Your task to perform on an android device: What's the weather? Image 0: 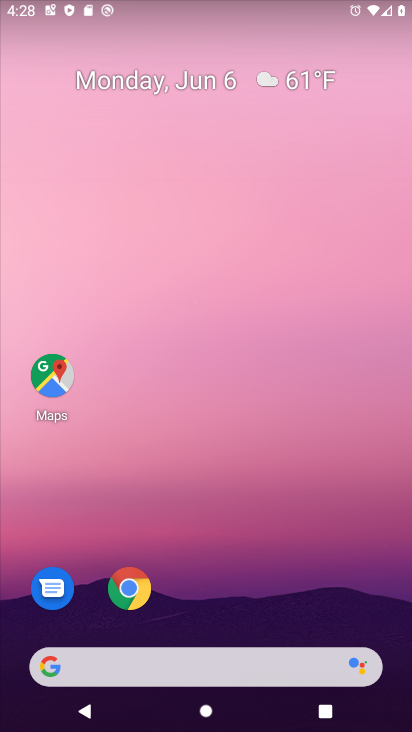
Step 0: drag from (255, 384) to (204, 84)
Your task to perform on an android device: What's the weather? Image 1: 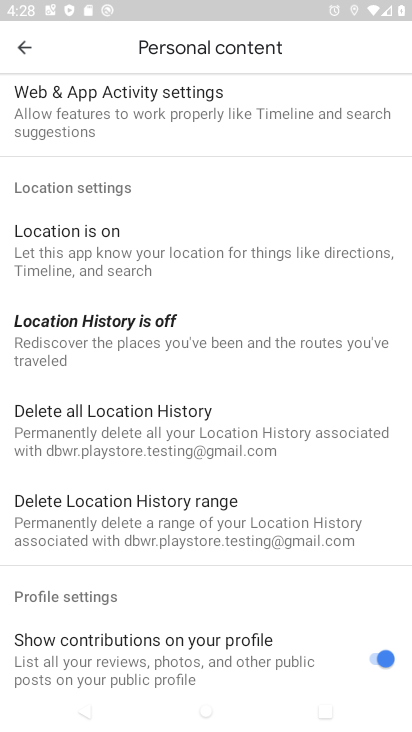
Step 1: press home button
Your task to perform on an android device: What's the weather? Image 2: 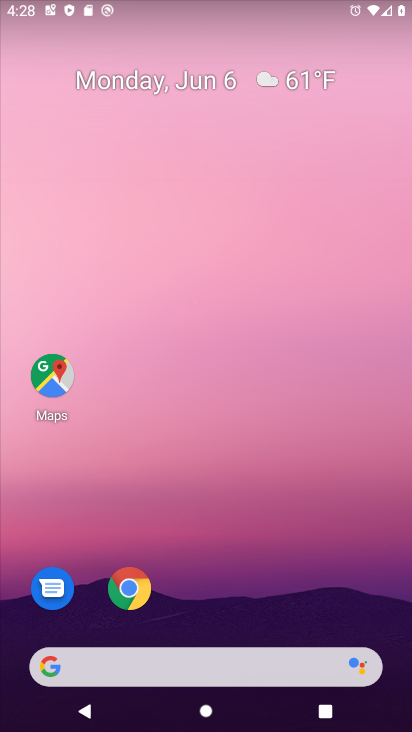
Step 2: click (304, 656)
Your task to perform on an android device: What's the weather? Image 3: 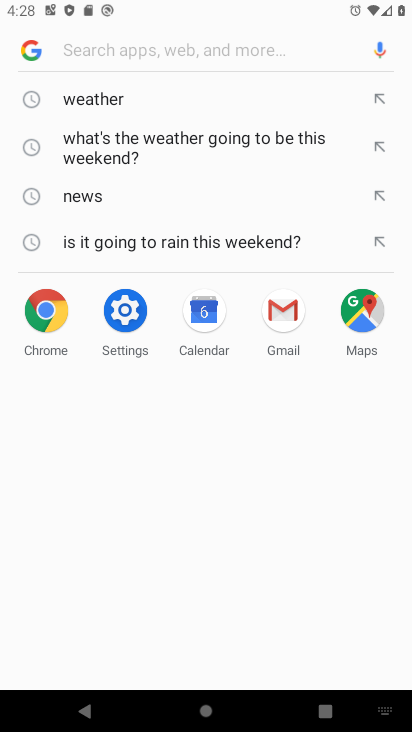
Step 3: click (101, 118)
Your task to perform on an android device: What's the weather? Image 4: 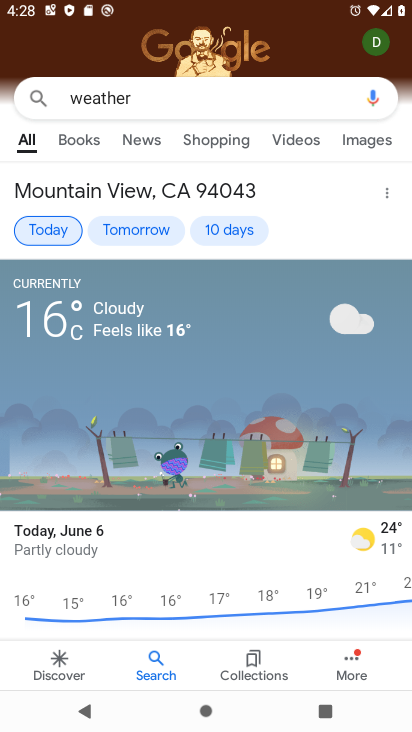
Step 4: task complete